Your task to perform on an android device: turn off notifications in google photos Image 0: 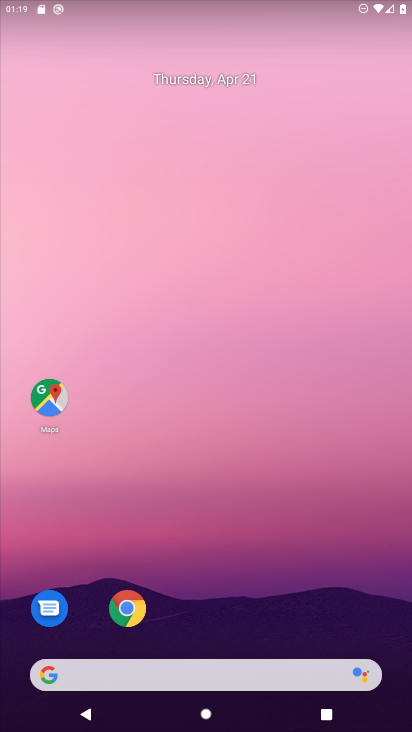
Step 0: drag from (232, 638) to (285, 189)
Your task to perform on an android device: turn off notifications in google photos Image 1: 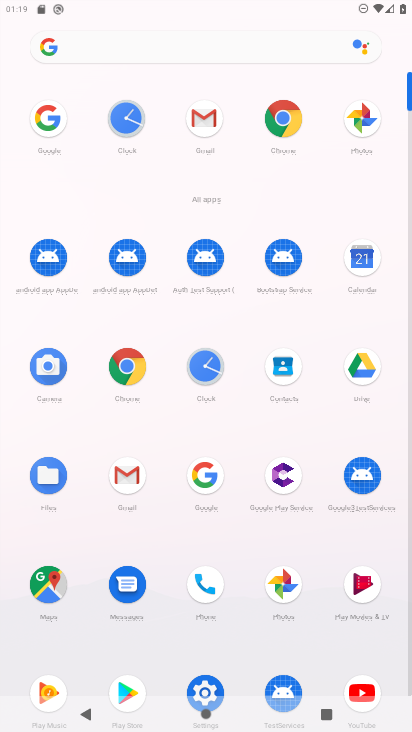
Step 1: click (281, 581)
Your task to perform on an android device: turn off notifications in google photos Image 2: 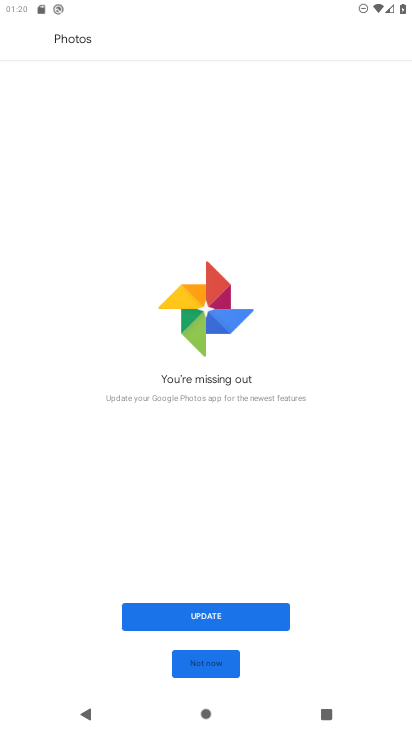
Step 2: click (195, 667)
Your task to perform on an android device: turn off notifications in google photos Image 3: 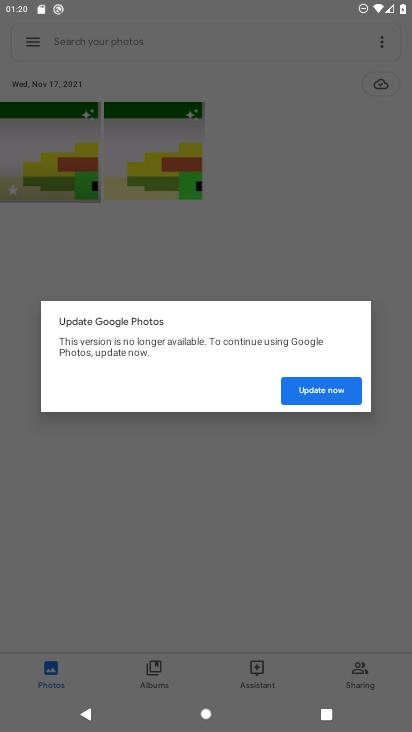
Step 3: press back button
Your task to perform on an android device: turn off notifications in google photos Image 4: 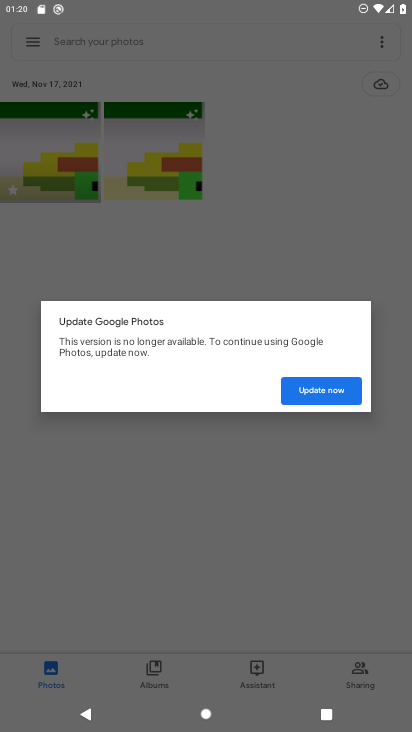
Step 4: click (321, 385)
Your task to perform on an android device: turn off notifications in google photos Image 5: 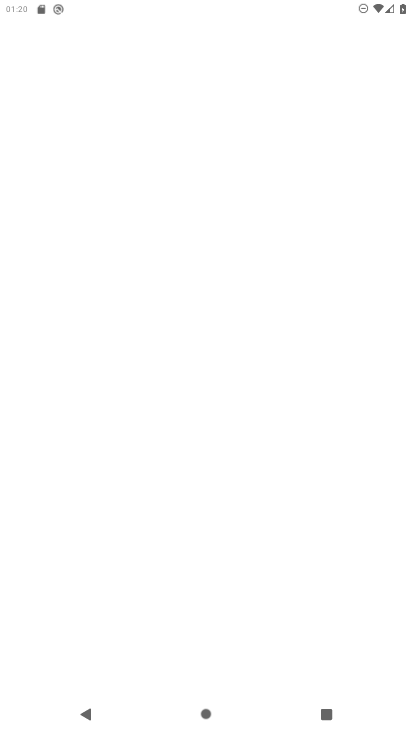
Step 5: press back button
Your task to perform on an android device: turn off notifications in google photos Image 6: 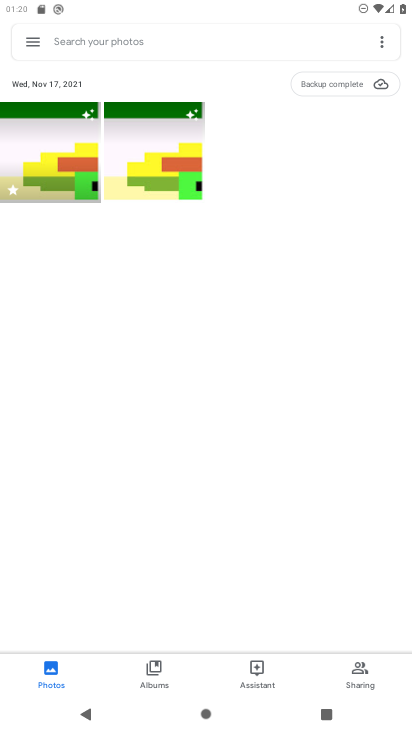
Step 6: click (37, 37)
Your task to perform on an android device: turn off notifications in google photos Image 7: 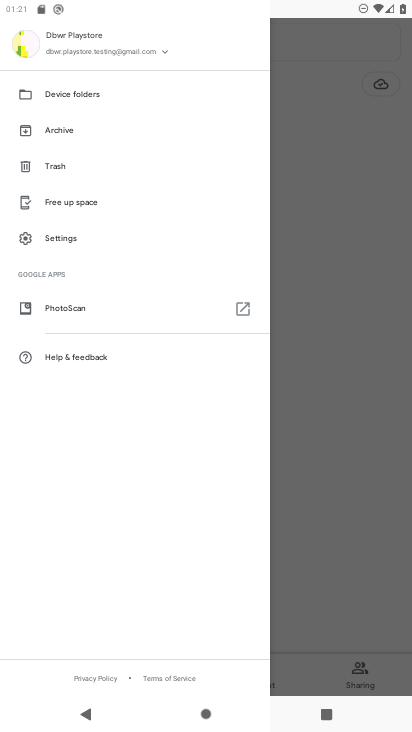
Step 7: click (63, 233)
Your task to perform on an android device: turn off notifications in google photos Image 8: 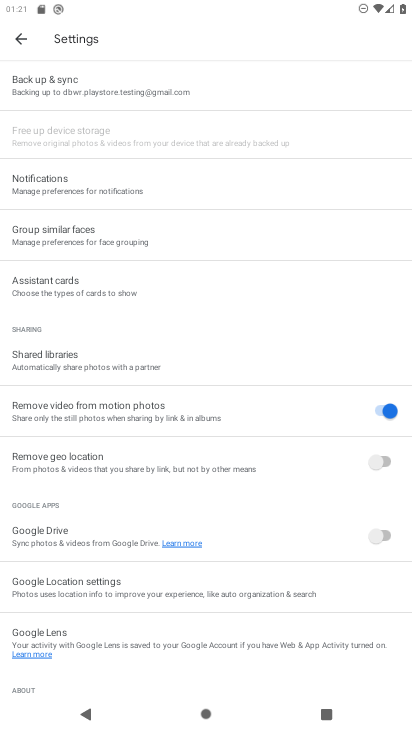
Step 8: click (103, 179)
Your task to perform on an android device: turn off notifications in google photos Image 9: 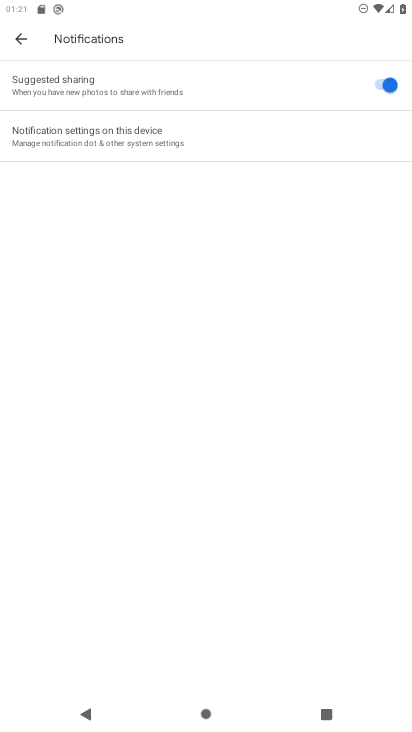
Step 9: click (82, 131)
Your task to perform on an android device: turn off notifications in google photos Image 10: 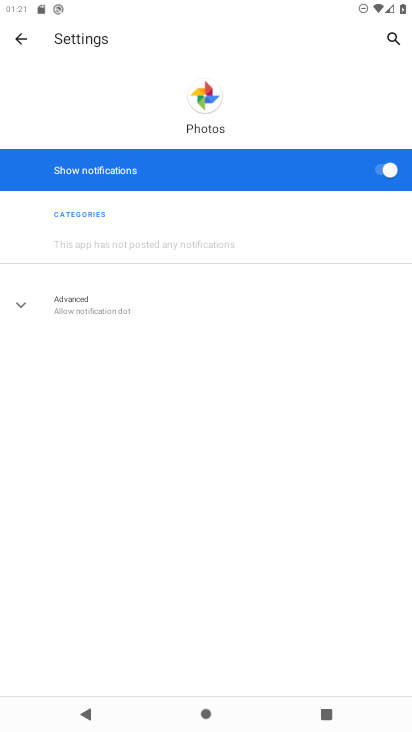
Step 10: click (376, 166)
Your task to perform on an android device: turn off notifications in google photos Image 11: 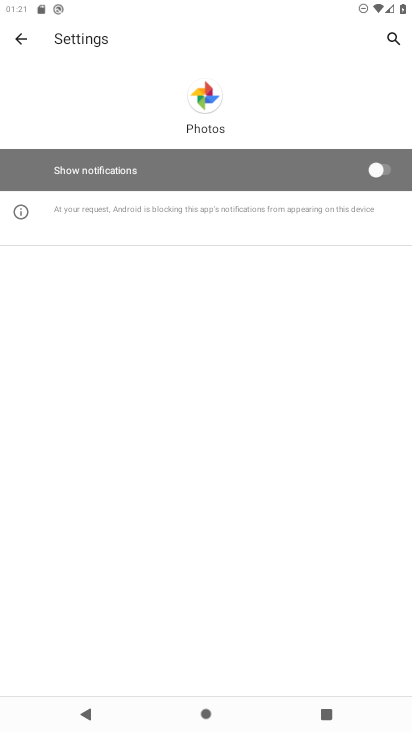
Step 11: task complete